Your task to perform on an android device: turn off notifications in google photos Image 0: 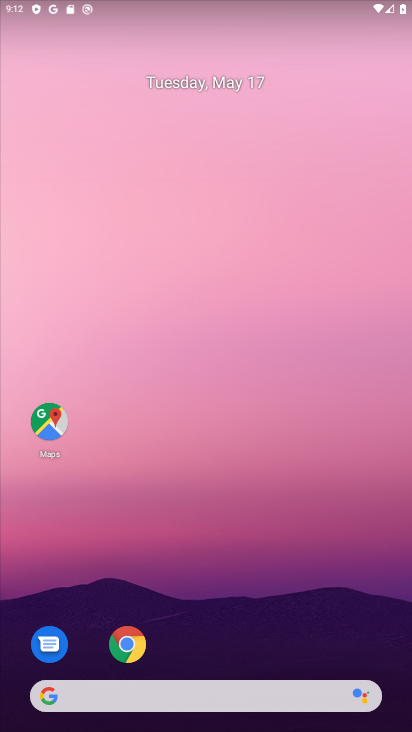
Step 0: drag from (168, 637) to (173, 326)
Your task to perform on an android device: turn off notifications in google photos Image 1: 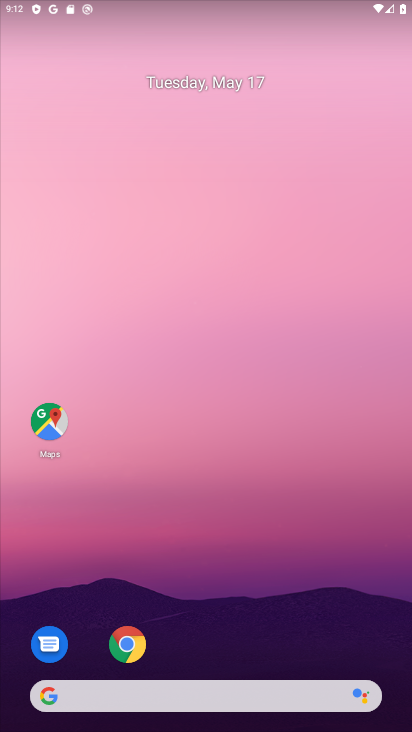
Step 1: drag from (171, 680) to (312, 40)
Your task to perform on an android device: turn off notifications in google photos Image 2: 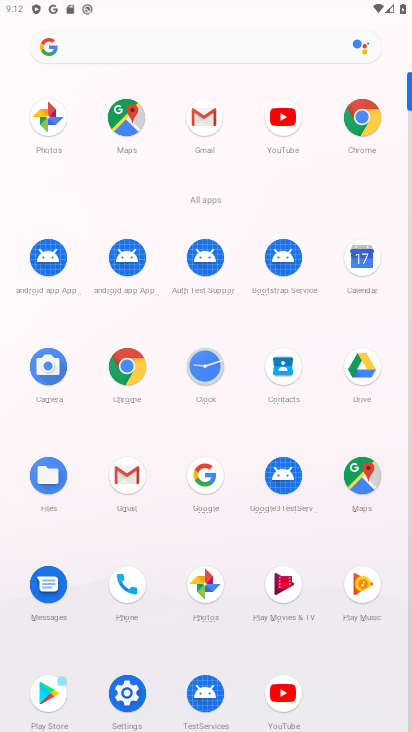
Step 2: click (207, 580)
Your task to perform on an android device: turn off notifications in google photos Image 3: 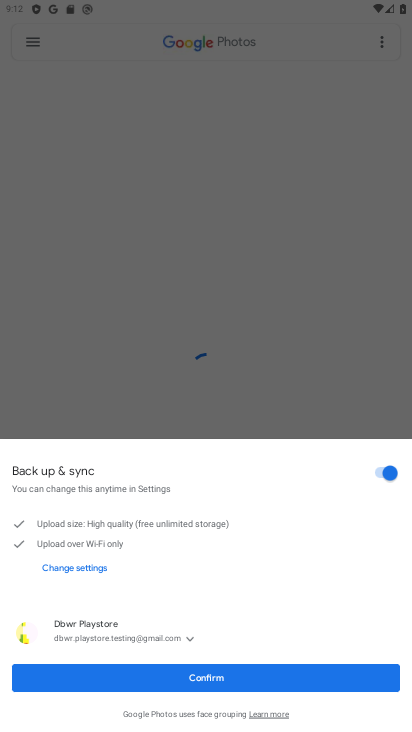
Step 3: click (214, 678)
Your task to perform on an android device: turn off notifications in google photos Image 4: 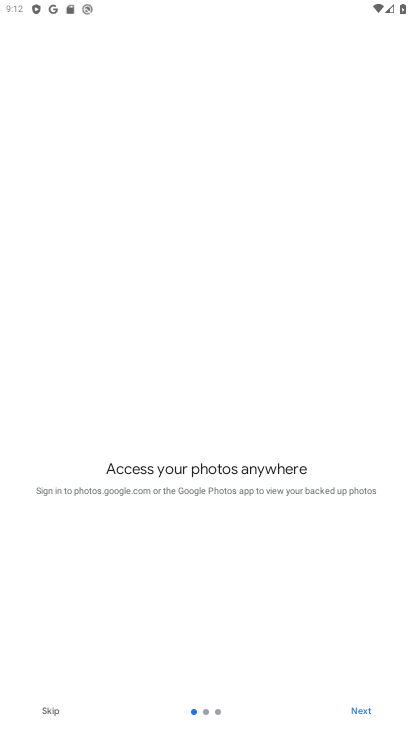
Step 4: click (351, 720)
Your task to perform on an android device: turn off notifications in google photos Image 5: 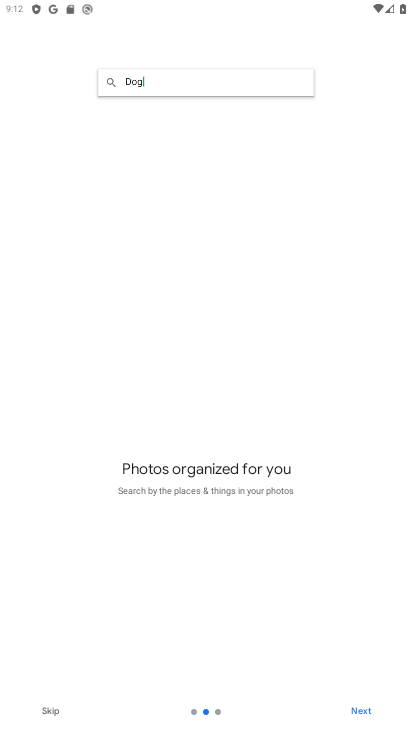
Step 5: click (351, 720)
Your task to perform on an android device: turn off notifications in google photos Image 6: 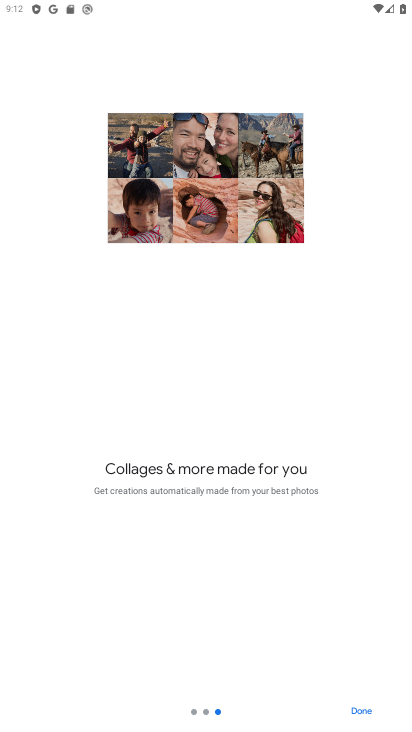
Step 6: click (351, 720)
Your task to perform on an android device: turn off notifications in google photos Image 7: 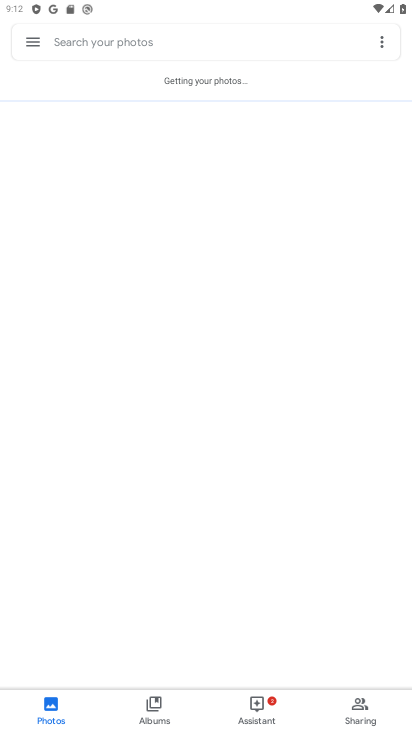
Step 7: click (29, 41)
Your task to perform on an android device: turn off notifications in google photos Image 8: 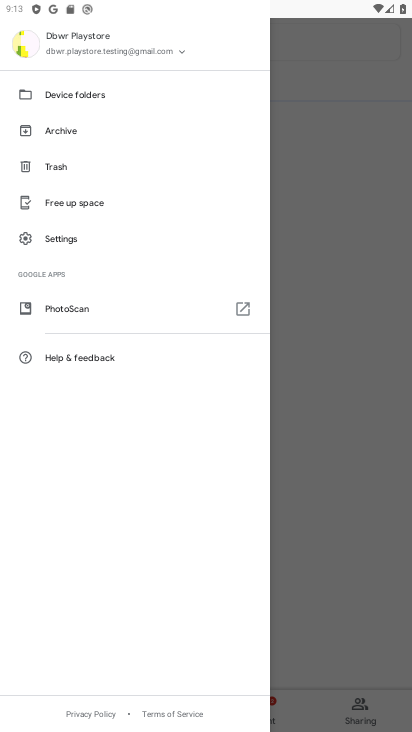
Step 8: click (75, 250)
Your task to perform on an android device: turn off notifications in google photos Image 9: 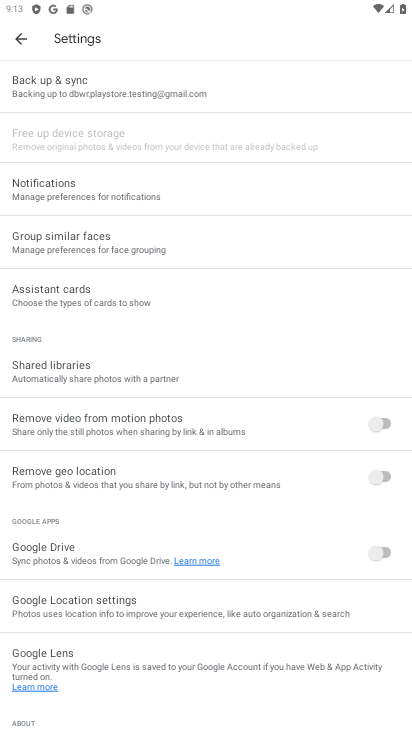
Step 9: click (128, 209)
Your task to perform on an android device: turn off notifications in google photos Image 10: 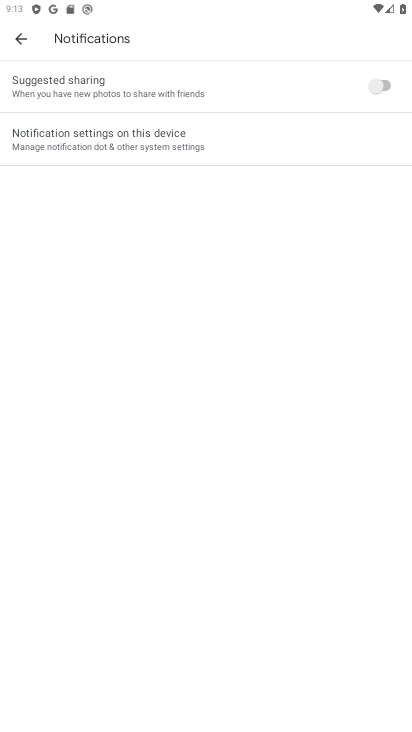
Step 10: click (147, 142)
Your task to perform on an android device: turn off notifications in google photos Image 11: 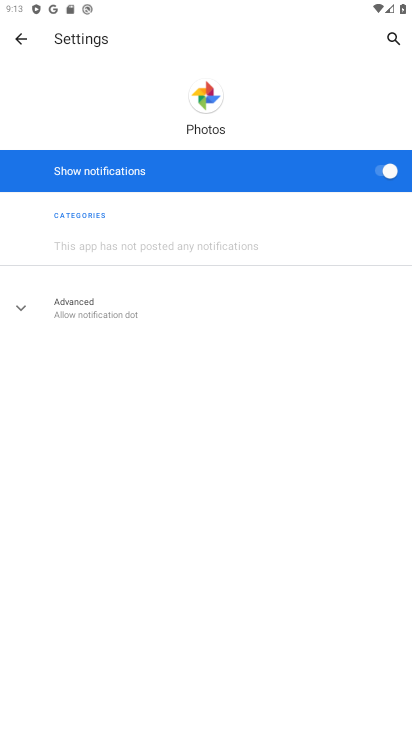
Step 11: click (391, 175)
Your task to perform on an android device: turn off notifications in google photos Image 12: 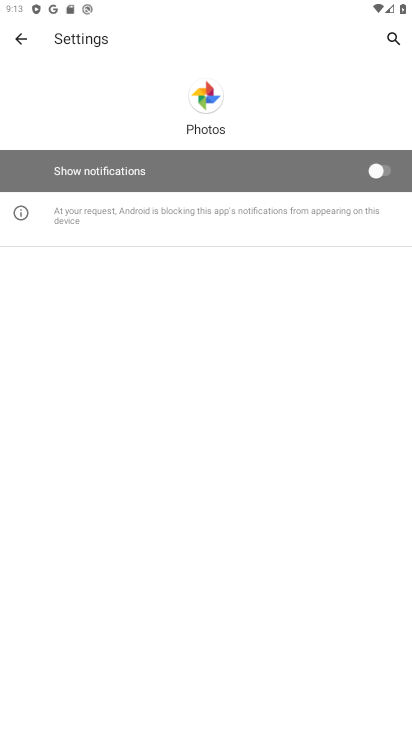
Step 12: task complete